Your task to perform on an android device: toggle pop-ups in chrome Image 0: 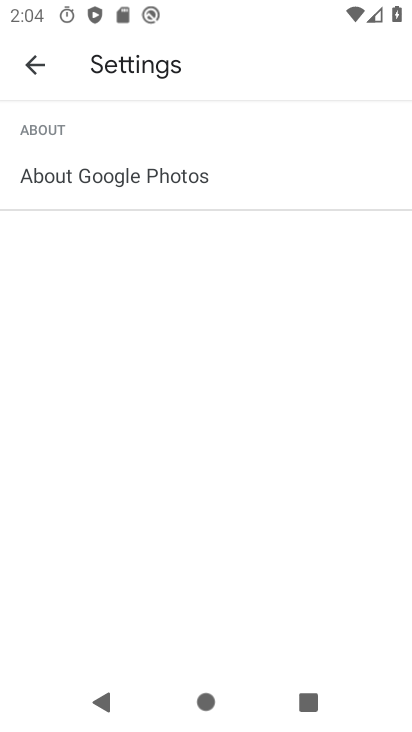
Step 0: press home button
Your task to perform on an android device: toggle pop-ups in chrome Image 1: 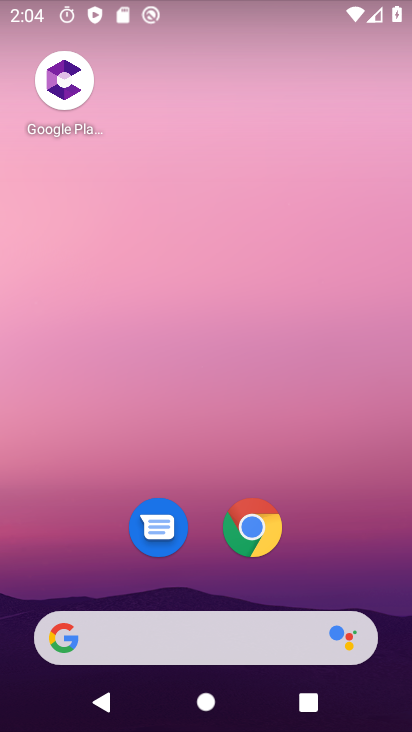
Step 1: click (254, 527)
Your task to perform on an android device: toggle pop-ups in chrome Image 2: 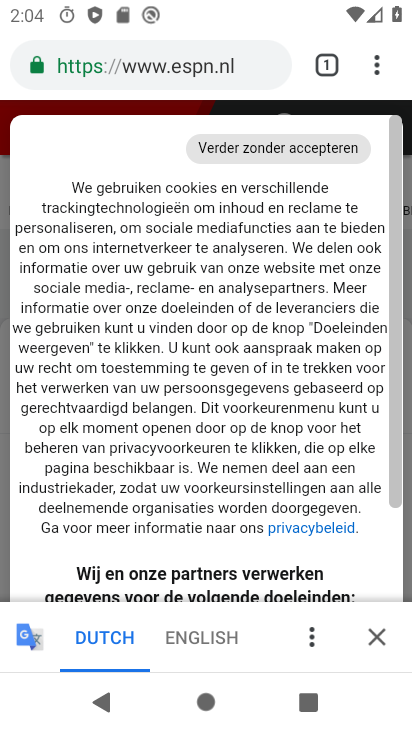
Step 2: click (378, 67)
Your task to perform on an android device: toggle pop-ups in chrome Image 3: 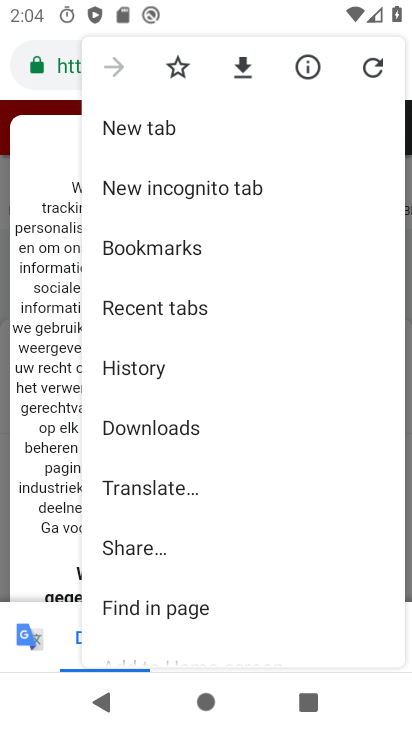
Step 3: drag from (172, 448) to (199, 397)
Your task to perform on an android device: toggle pop-ups in chrome Image 4: 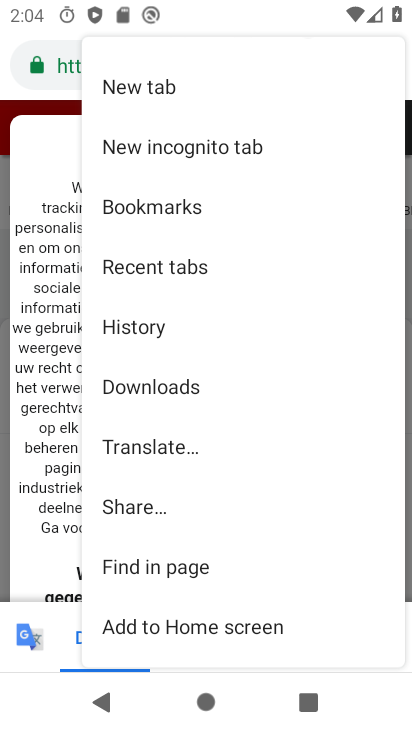
Step 4: drag from (175, 544) to (201, 488)
Your task to perform on an android device: toggle pop-ups in chrome Image 5: 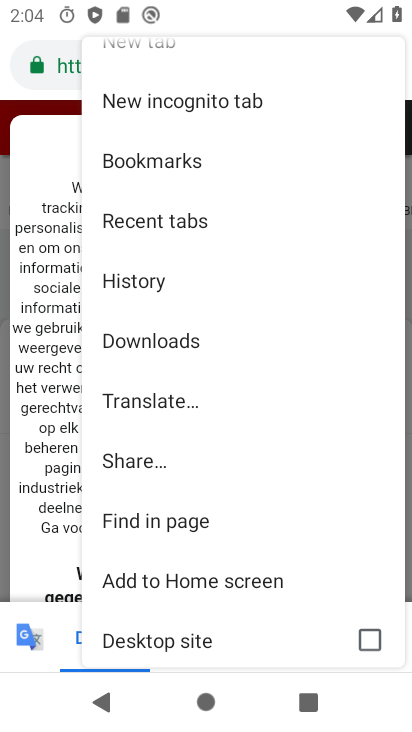
Step 5: drag from (153, 554) to (224, 451)
Your task to perform on an android device: toggle pop-ups in chrome Image 6: 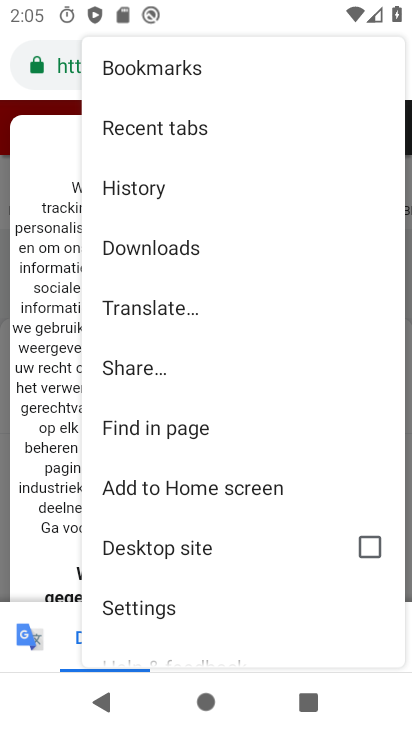
Step 6: click (137, 607)
Your task to perform on an android device: toggle pop-ups in chrome Image 7: 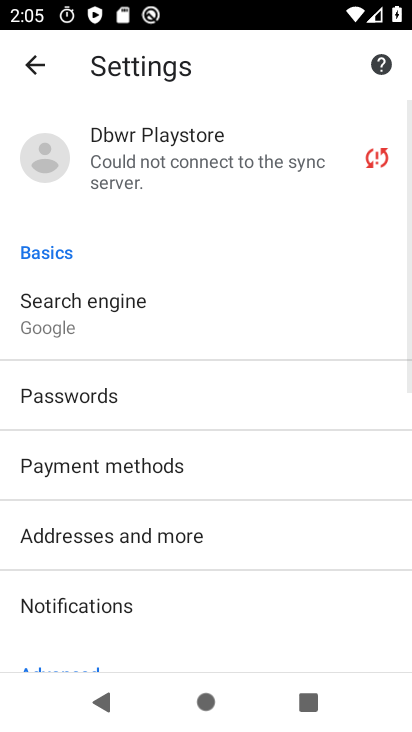
Step 7: drag from (127, 435) to (181, 349)
Your task to perform on an android device: toggle pop-ups in chrome Image 8: 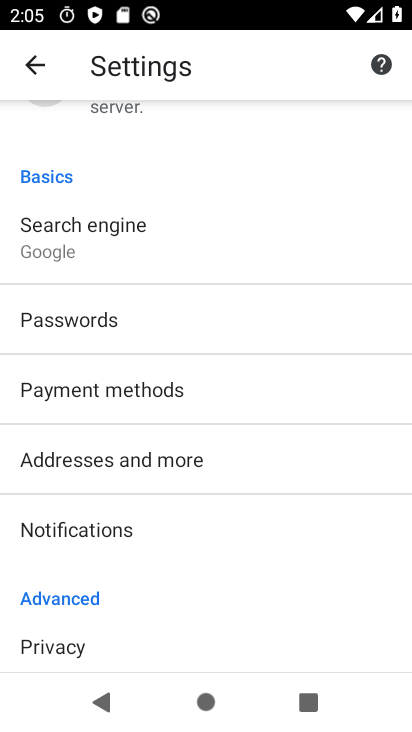
Step 8: drag from (109, 480) to (173, 388)
Your task to perform on an android device: toggle pop-ups in chrome Image 9: 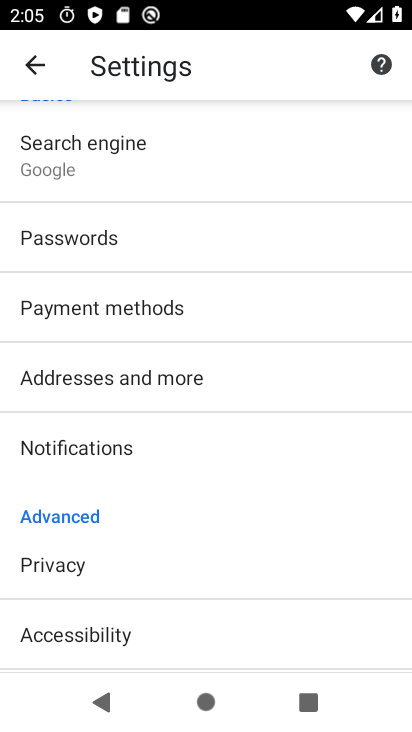
Step 9: drag from (94, 480) to (156, 391)
Your task to perform on an android device: toggle pop-ups in chrome Image 10: 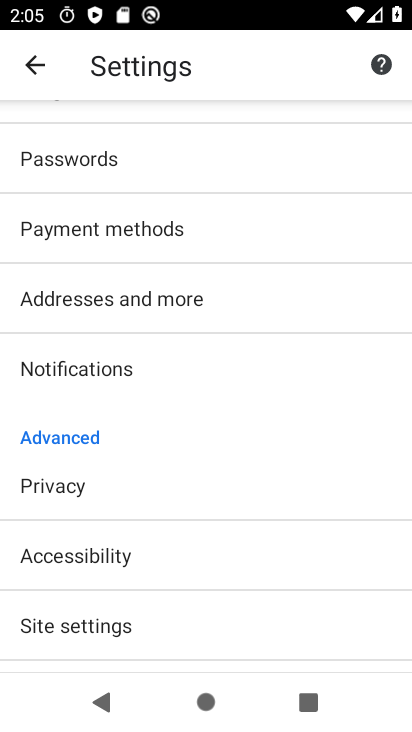
Step 10: drag from (86, 517) to (126, 439)
Your task to perform on an android device: toggle pop-ups in chrome Image 11: 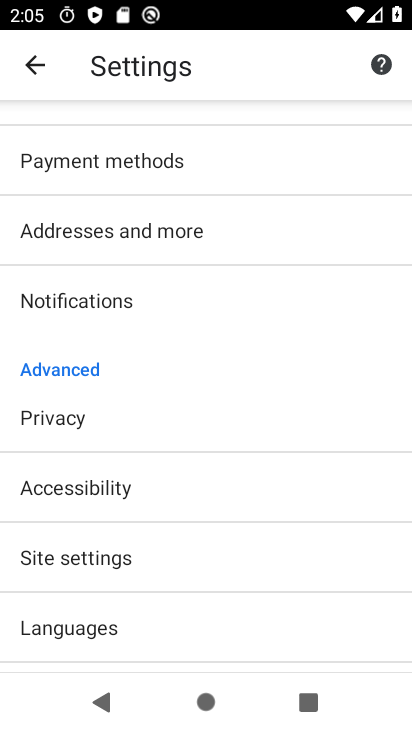
Step 11: drag from (62, 511) to (115, 444)
Your task to perform on an android device: toggle pop-ups in chrome Image 12: 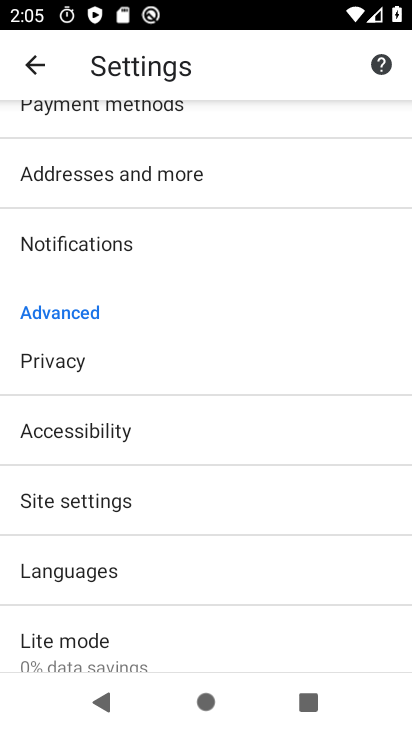
Step 12: click (90, 500)
Your task to perform on an android device: toggle pop-ups in chrome Image 13: 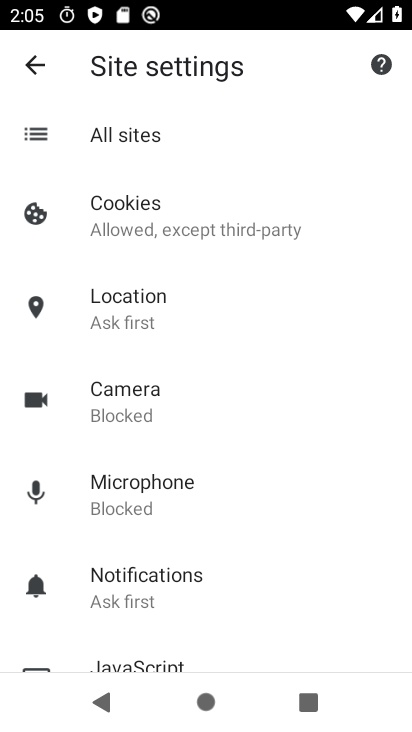
Step 13: drag from (149, 515) to (210, 428)
Your task to perform on an android device: toggle pop-ups in chrome Image 14: 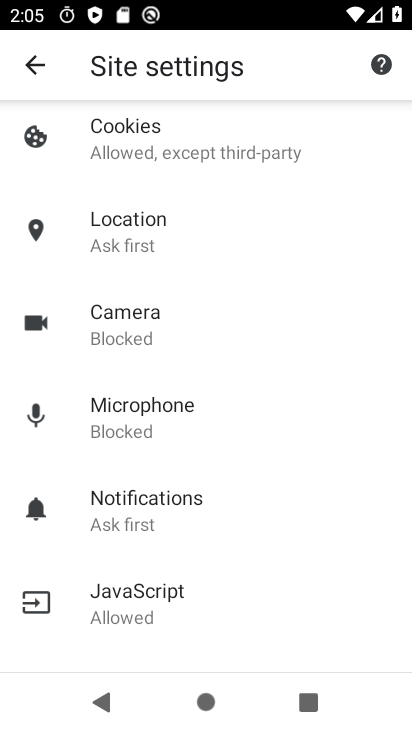
Step 14: drag from (160, 531) to (223, 449)
Your task to perform on an android device: toggle pop-ups in chrome Image 15: 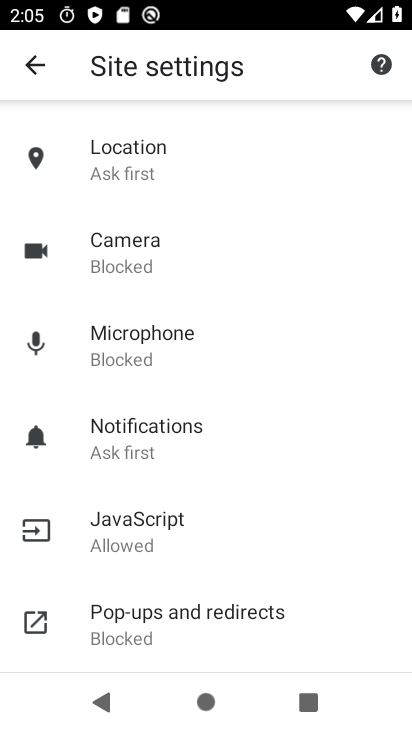
Step 15: drag from (144, 566) to (233, 453)
Your task to perform on an android device: toggle pop-ups in chrome Image 16: 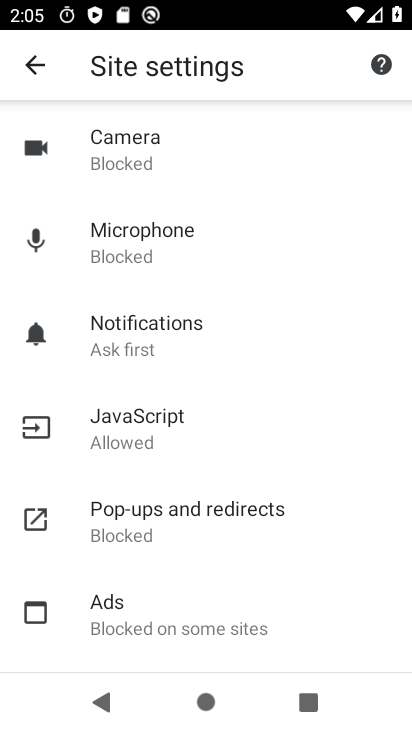
Step 16: click (181, 513)
Your task to perform on an android device: toggle pop-ups in chrome Image 17: 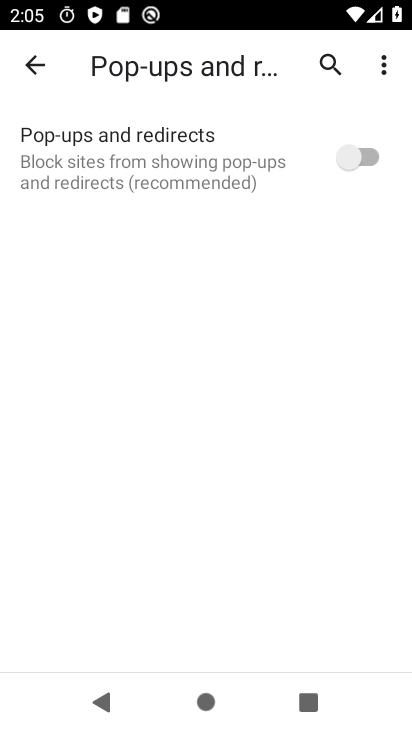
Step 17: click (348, 160)
Your task to perform on an android device: toggle pop-ups in chrome Image 18: 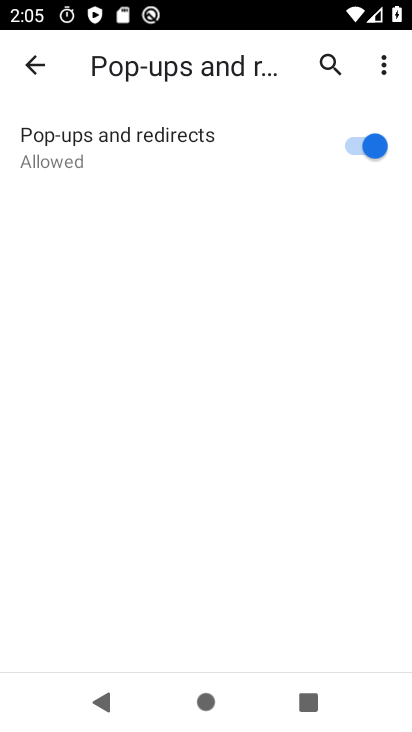
Step 18: task complete